Your task to perform on an android device: all mails in gmail Image 0: 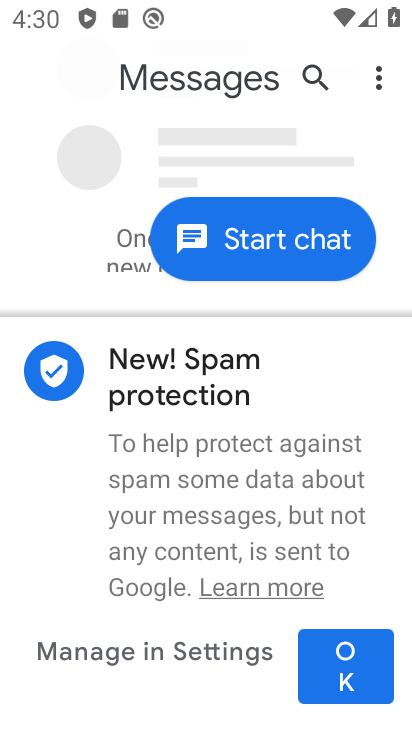
Step 0: drag from (393, 413) to (370, 12)
Your task to perform on an android device: all mails in gmail Image 1: 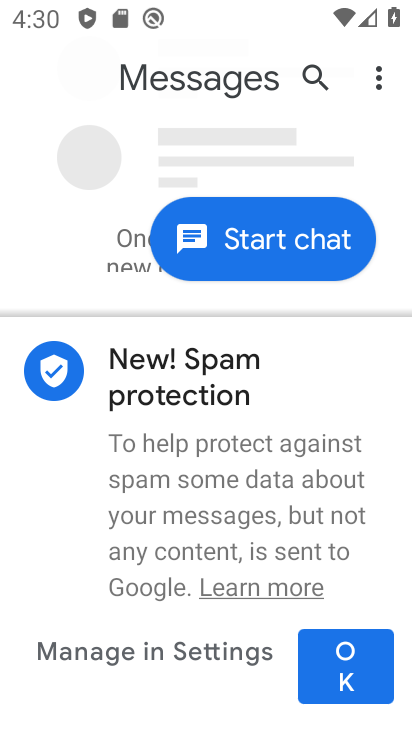
Step 1: press home button
Your task to perform on an android device: all mails in gmail Image 2: 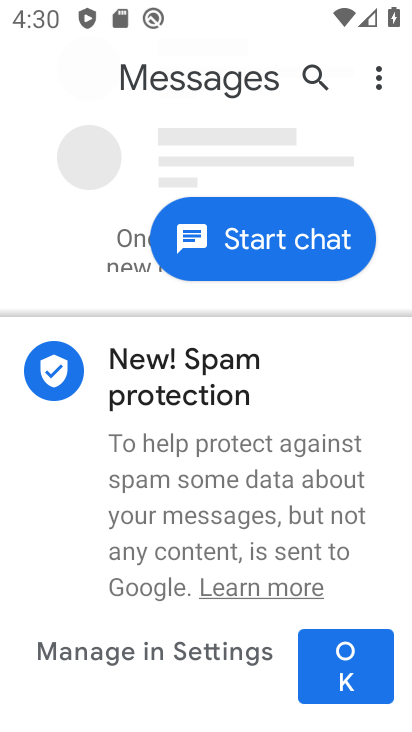
Step 2: drag from (370, 12) to (341, 152)
Your task to perform on an android device: all mails in gmail Image 3: 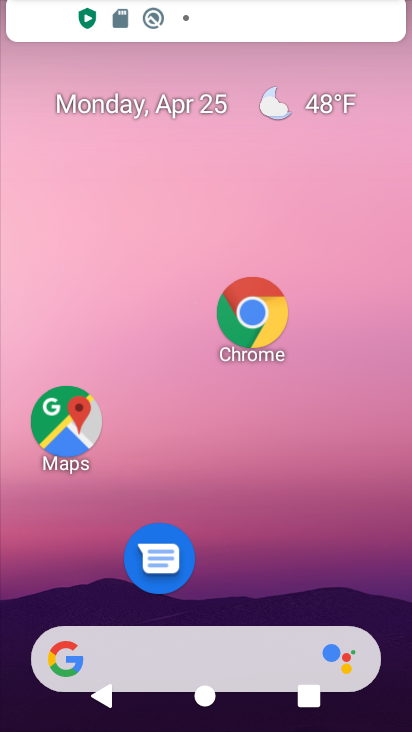
Step 3: drag from (342, 532) to (338, 29)
Your task to perform on an android device: all mails in gmail Image 4: 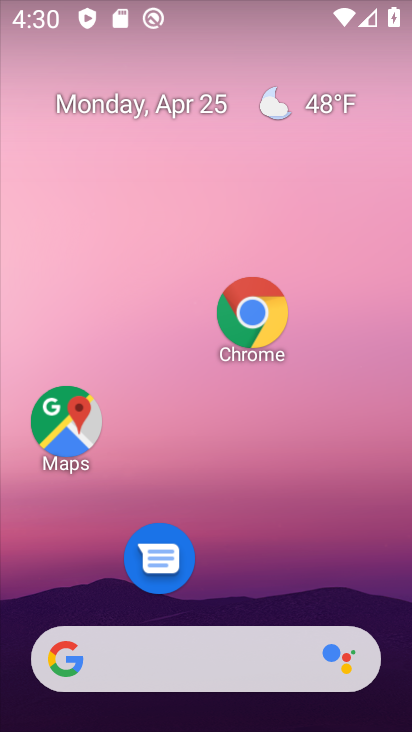
Step 4: drag from (345, 315) to (280, 0)
Your task to perform on an android device: all mails in gmail Image 5: 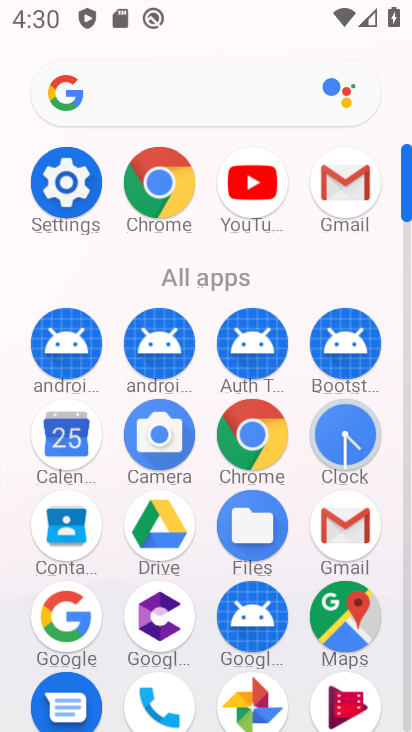
Step 5: click (357, 522)
Your task to perform on an android device: all mails in gmail Image 6: 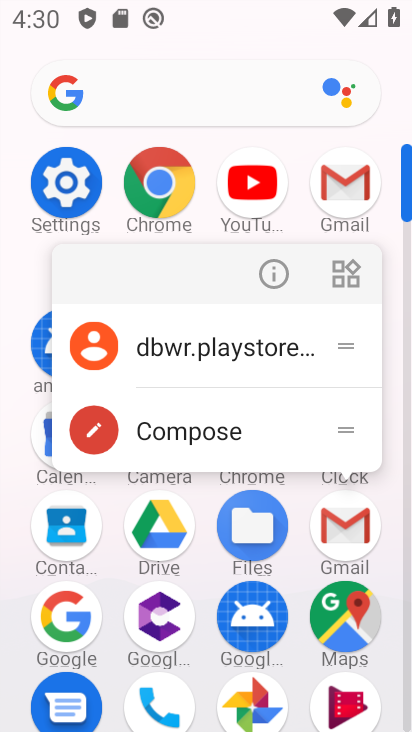
Step 6: click (350, 530)
Your task to perform on an android device: all mails in gmail Image 7: 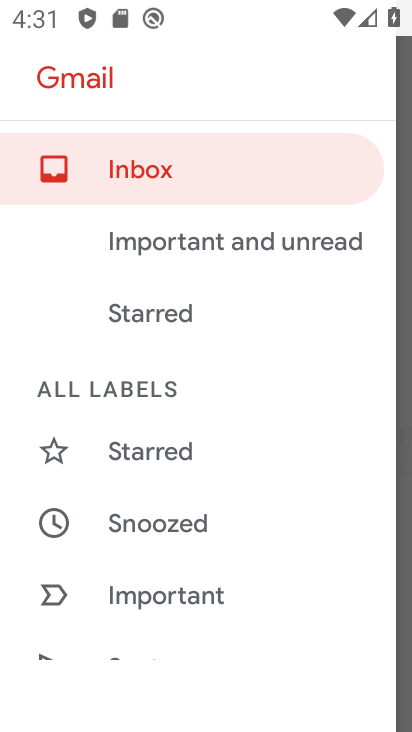
Step 7: drag from (223, 596) to (243, 181)
Your task to perform on an android device: all mails in gmail Image 8: 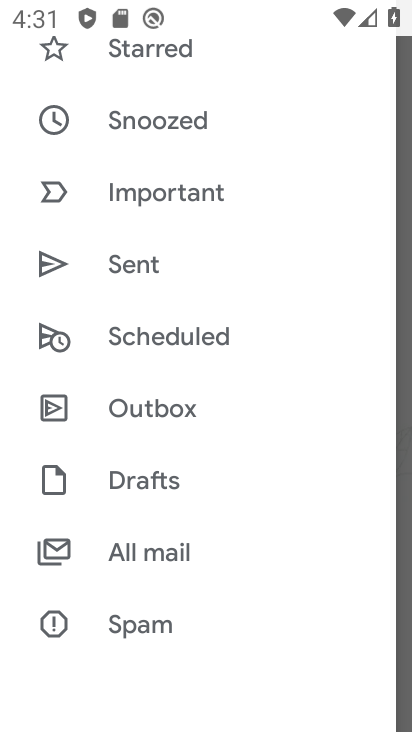
Step 8: click (157, 532)
Your task to perform on an android device: all mails in gmail Image 9: 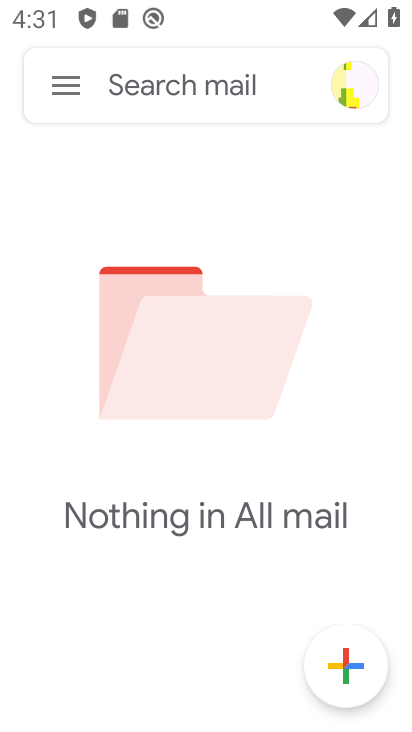
Step 9: task complete